Your task to perform on an android device: add a label to a message in the gmail app Image 0: 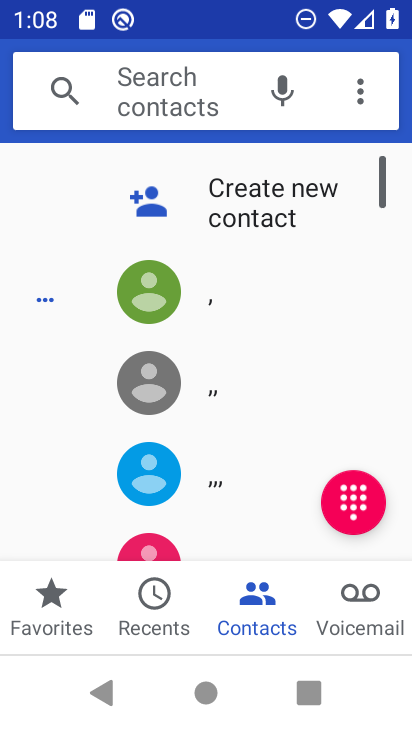
Step 0: press home button
Your task to perform on an android device: add a label to a message in the gmail app Image 1: 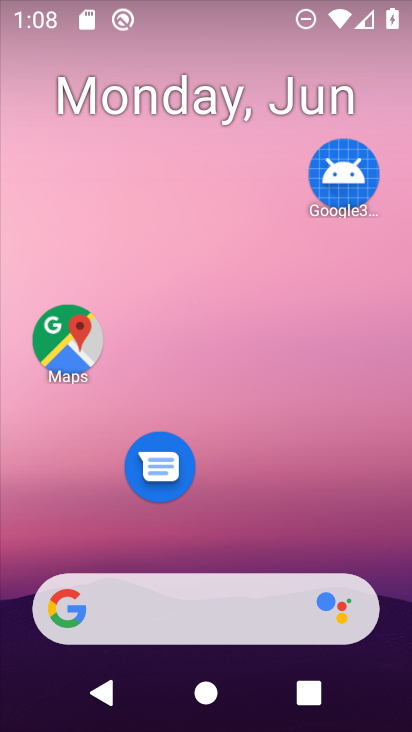
Step 1: drag from (388, 508) to (304, 206)
Your task to perform on an android device: add a label to a message in the gmail app Image 2: 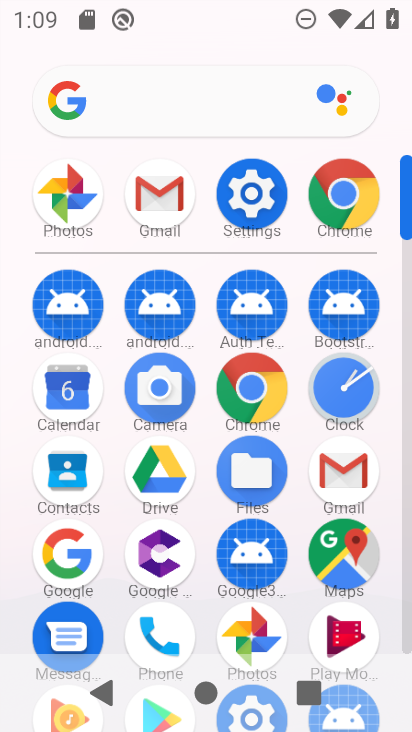
Step 2: click (167, 195)
Your task to perform on an android device: add a label to a message in the gmail app Image 3: 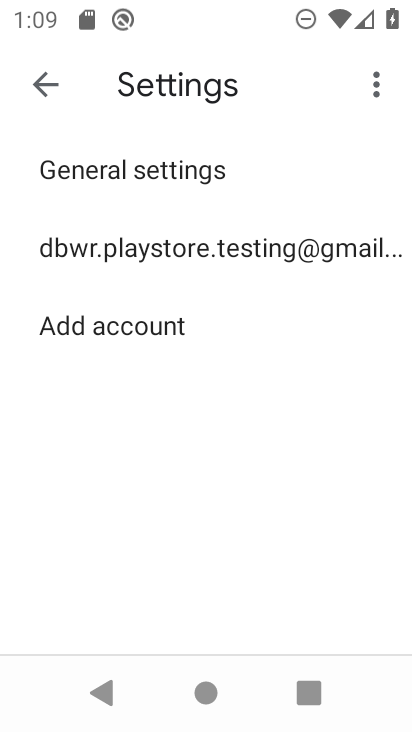
Step 3: click (39, 99)
Your task to perform on an android device: add a label to a message in the gmail app Image 4: 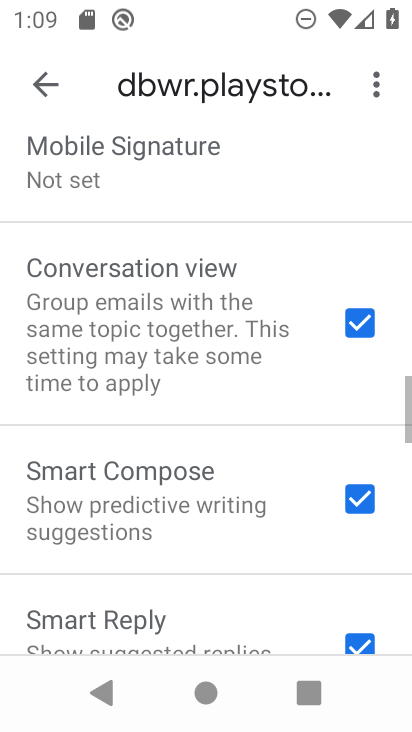
Step 4: drag from (39, 99) to (39, 64)
Your task to perform on an android device: add a label to a message in the gmail app Image 5: 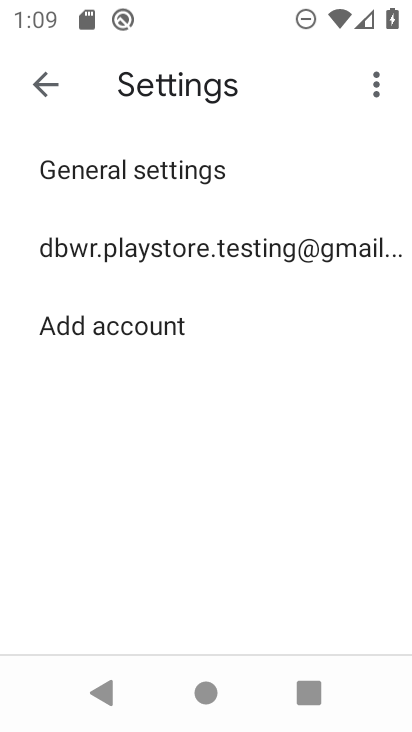
Step 5: click (71, 78)
Your task to perform on an android device: add a label to a message in the gmail app Image 6: 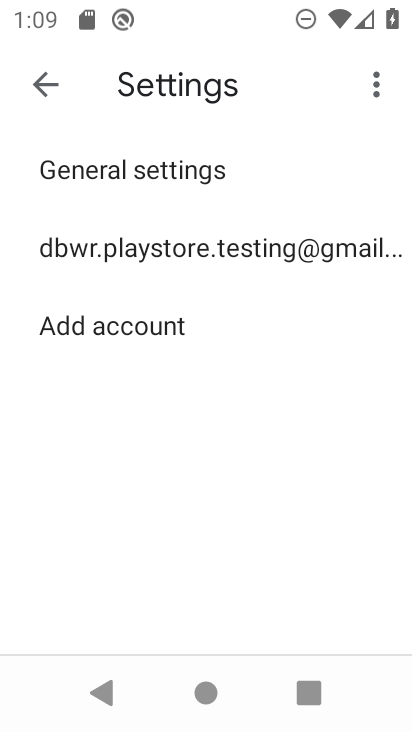
Step 6: click (55, 88)
Your task to perform on an android device: add a label to a message in the gmail app Image 7: 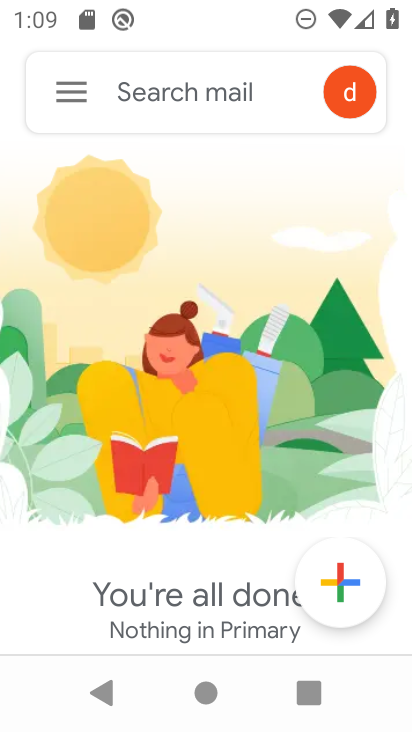
Step 7: click (56, 106)
Your task to perform on an android device: add a label to a message in the gmail app Image 8: 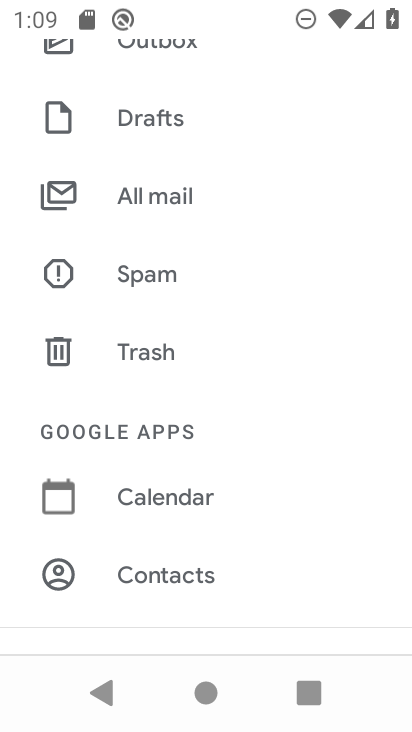
Step 8: task complete